Your task to perform on an android device: Is it going to rain tomorrow? Image 0: 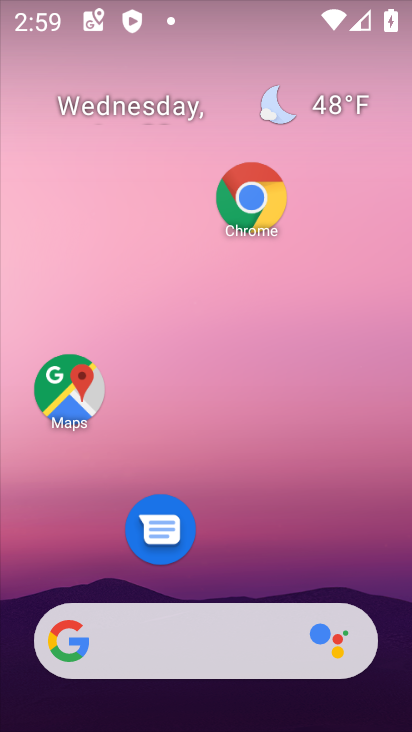
Step 0: click (314, 100)
Your task to perform on an android device: Is it going to rain tomorrow? Image 1: 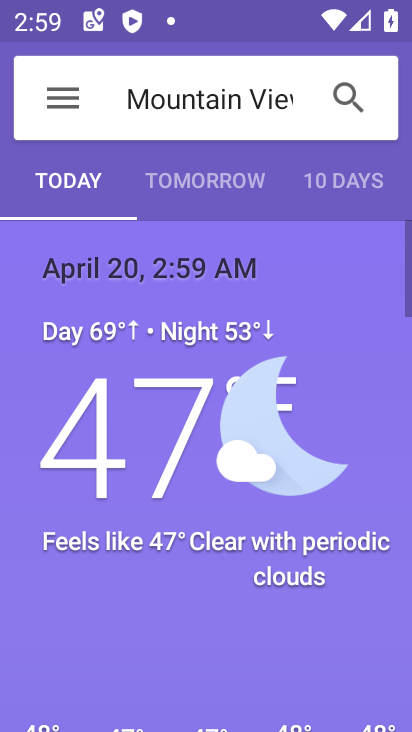
Step 1: click (206, 174)
Your task to perform on an android device: Is it going to rain tomorrow? Image 2: 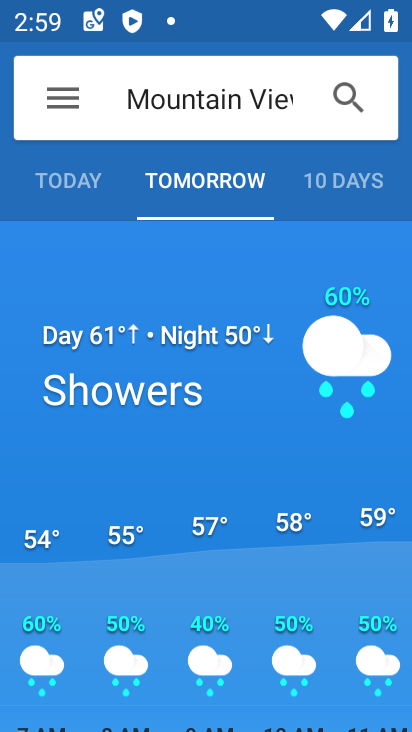
Step 2: task complete